Your task to perform on an android device: Open the stopwatch Image 0: 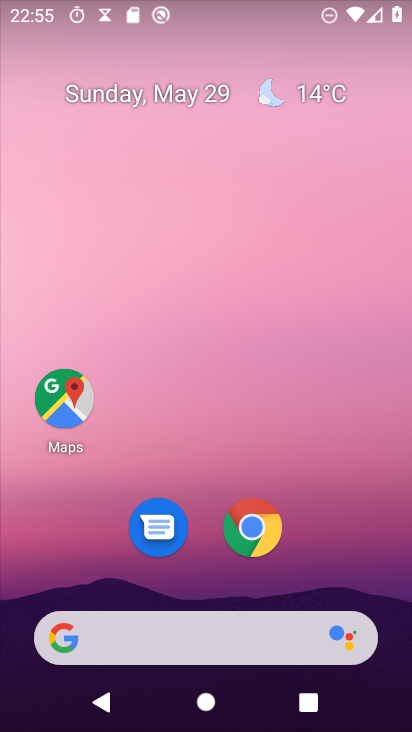
Step 0: drag from (212, 634) to (252, 165)
Your task to perform on an android device: Open the stopwatch Image 1: 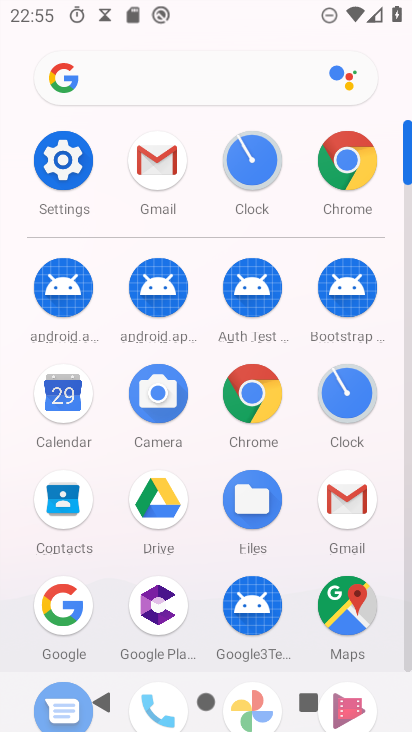
Step 1: click (250, 170)
Your task to perform on an android device: Open the stopwatch Image 2: 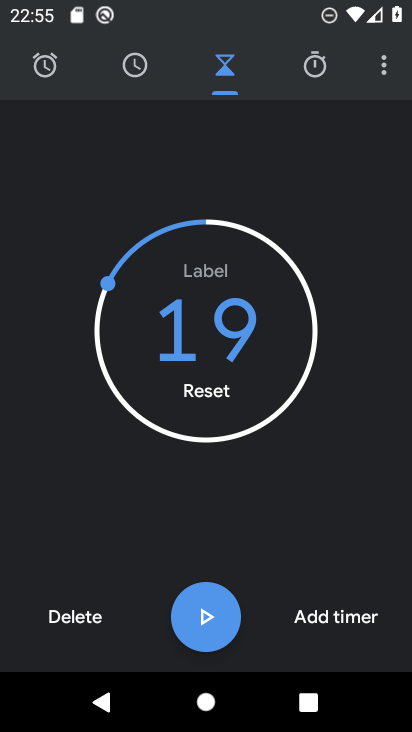
Step 2: click (318, 61)
Your task to perform on an android device: Open the stopwatch Image 3: 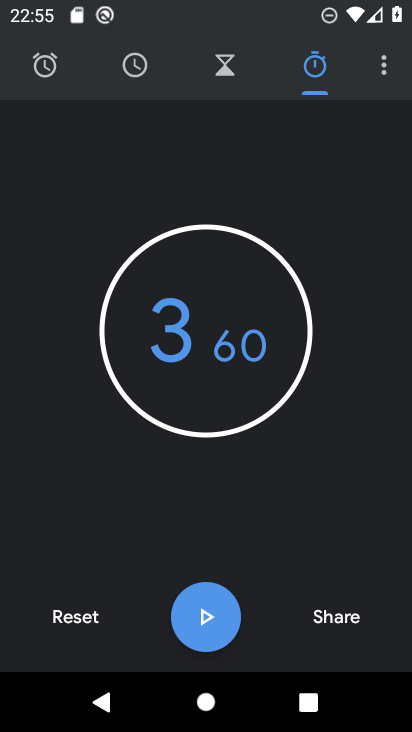
Step 3: task complete